Your task to perform on an android device: find snoozed emails in the gmail app Image 0: 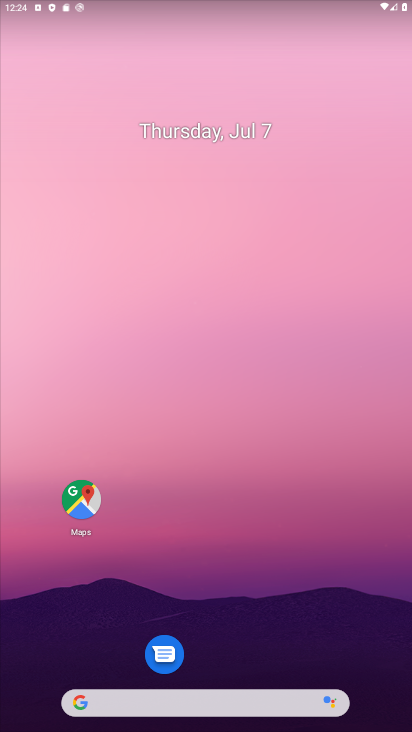
Step 0: drag from (213, 616) to (163, 256)
Your task to perform on an android device: find snoozed emails in the gmail app Image 1: 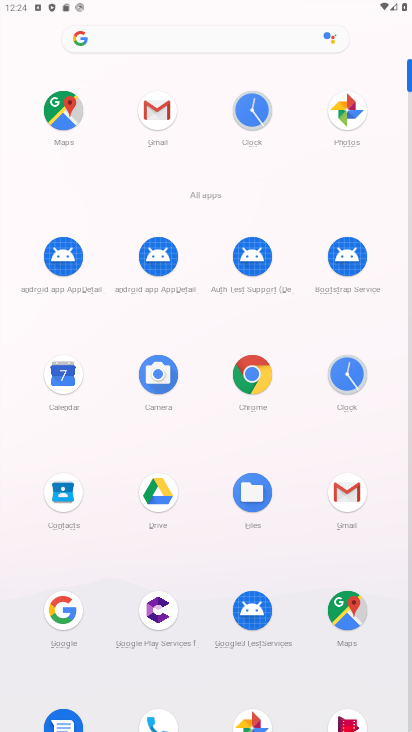
Step 1: click (348, 487)
Your task to perform on an android device: find snoozed emails in the gmail app Image 2: 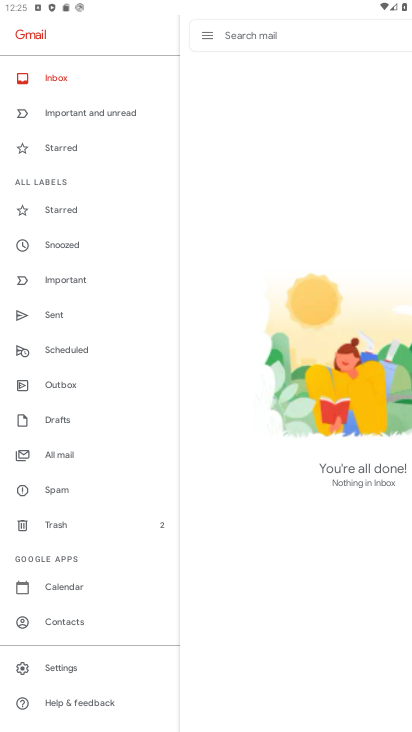
Step 2: click (84, 254)
Your task to perform on an android device: find snoozed emails in the gmail app Image 3: 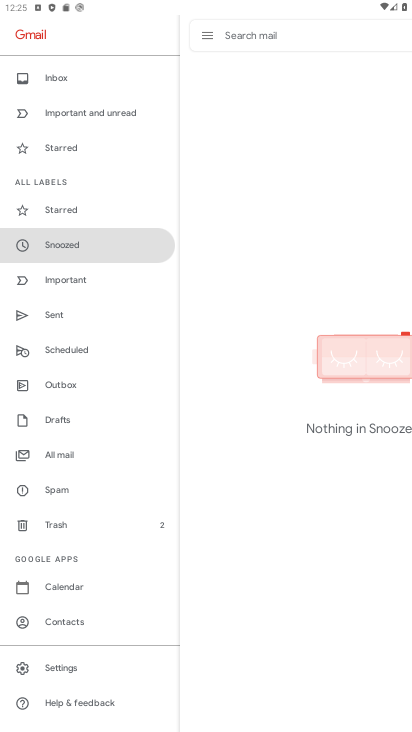
Step 3: task complete